Your task to perform on an android device: Open Reddit.com Image 0: 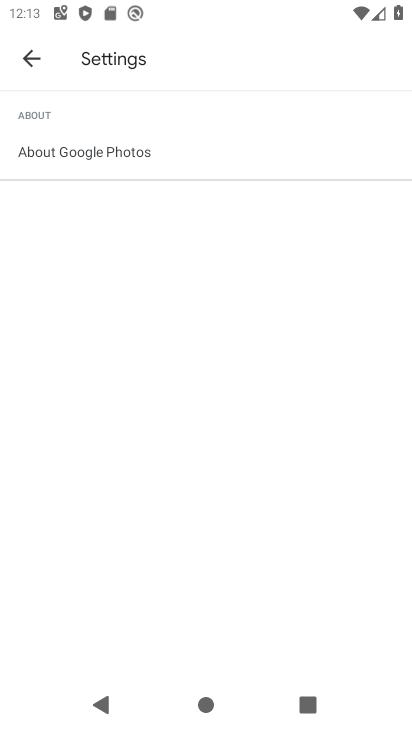
Step 0: click (26, 54)
Your task to perform on an android device: Open Reddit.com Image 1: 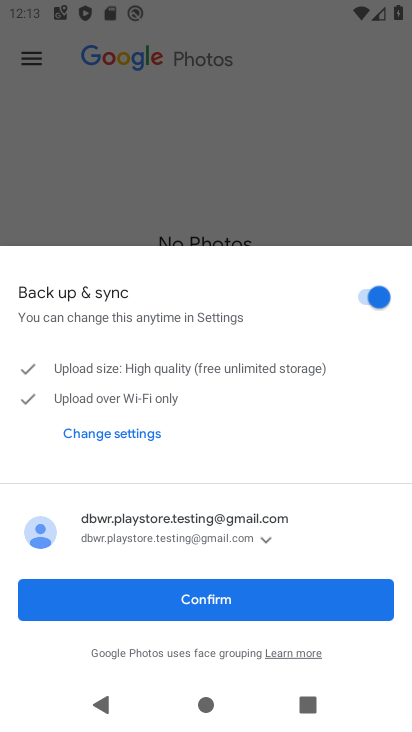
Step 1: click (231, 602)
Your task to perform on an android device: Open Reddit.com Image 2: 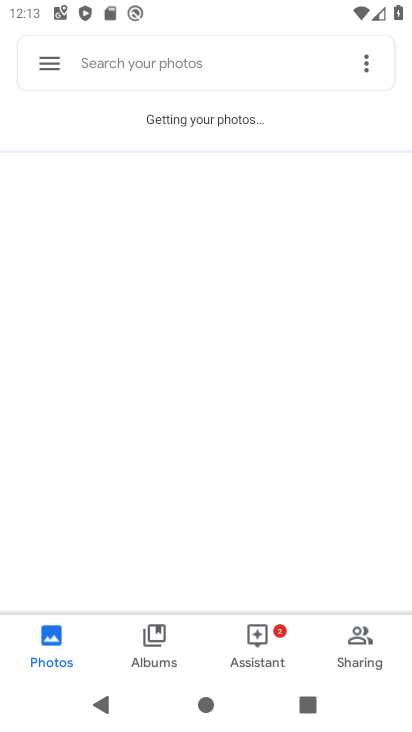
Step 2: press back button
Your task to perform on an android device: Open Reddit.com Image 3: 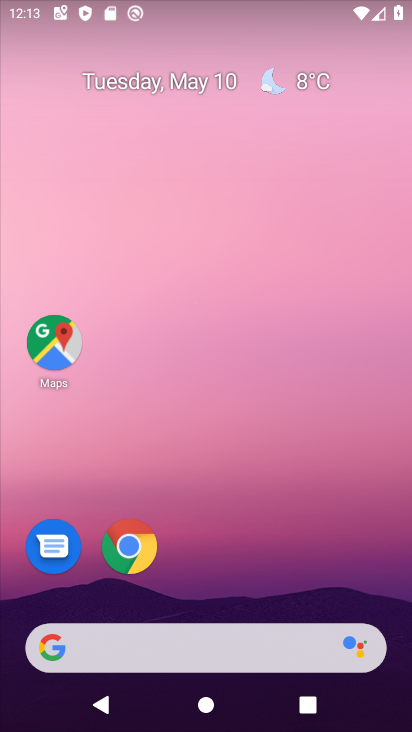
Step 3: drag from (268, 563) to (145, 153)
Your task to perform on an android device: Open Reddit.com Image 4: 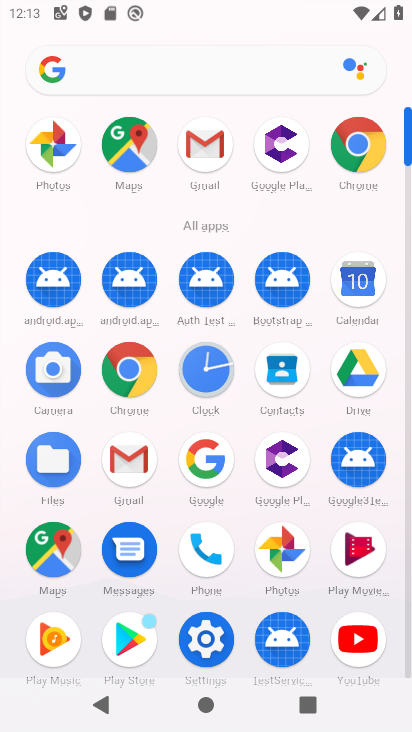
Step 4: click (137, 377)
Your task to perform on an android device: Open Reddit.com Image 5: 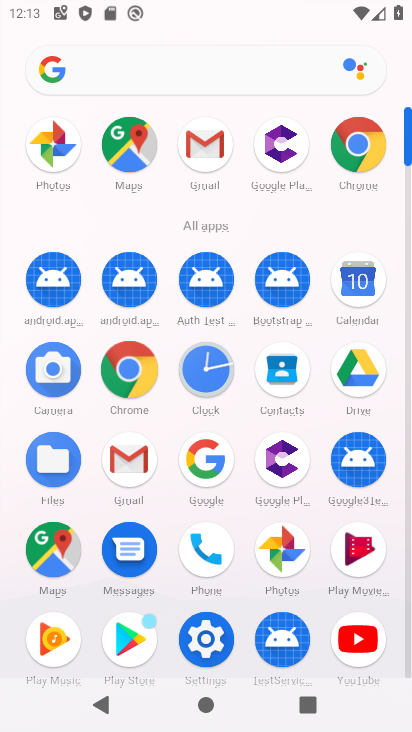
Step 5: click (137, 377)
Your task to perform on an android device: Open Reddit.com Image 6: 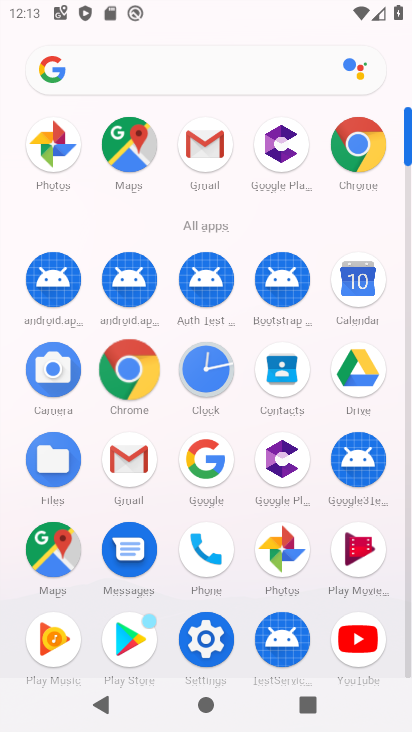
Step 6: click (137, 377)
Your task to perform on an android device: Open Reddit.com Image 7: 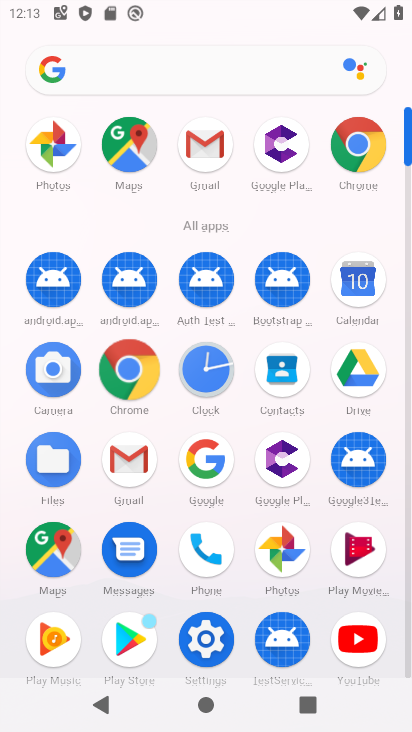
Step 7: click (137, 377)
Your task to perform on an android device: Open Reddit.com Image 8: 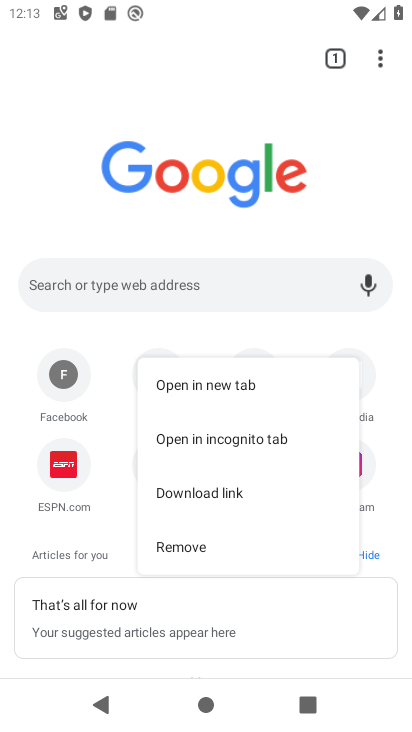
Step 8: click (77, 282)
Your task to perform on an android device: Open Reddit.com Image 9: 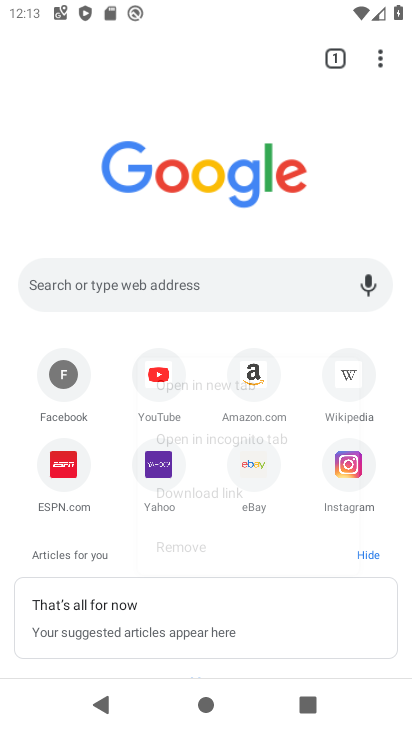
Step 9: click (77, 282)
Your task to perform on an android device: Open Reddit.com Image 10: 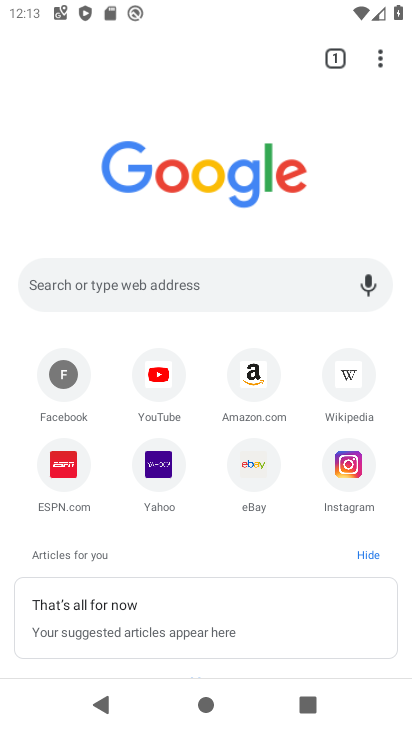
Step 10: click (77, 282)
Your task to perform on an android device: Open Reddit.com Image 11: 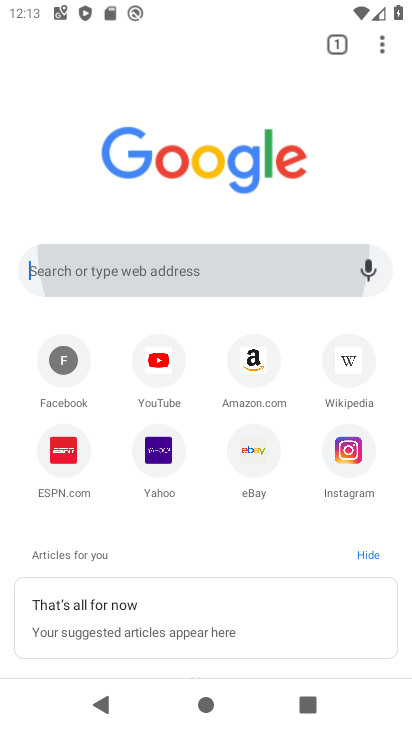
Step 11: click (77, 282)
Your task to perform on an android device: Open Reddit.com Image 12: 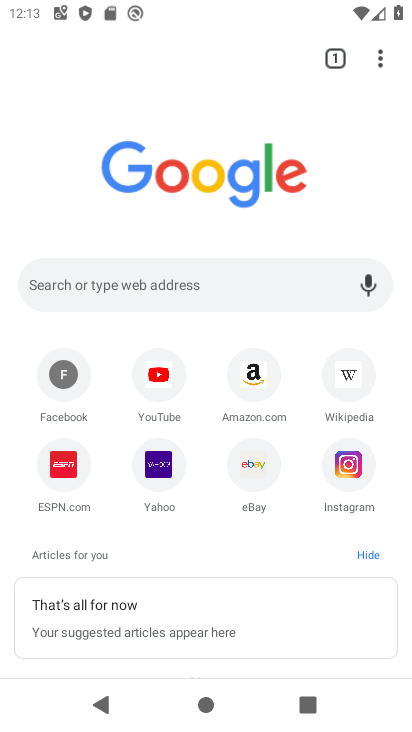
Step 12: click (64, 286)
Your task to perform on an android device: Open Reddit.com Image 13: 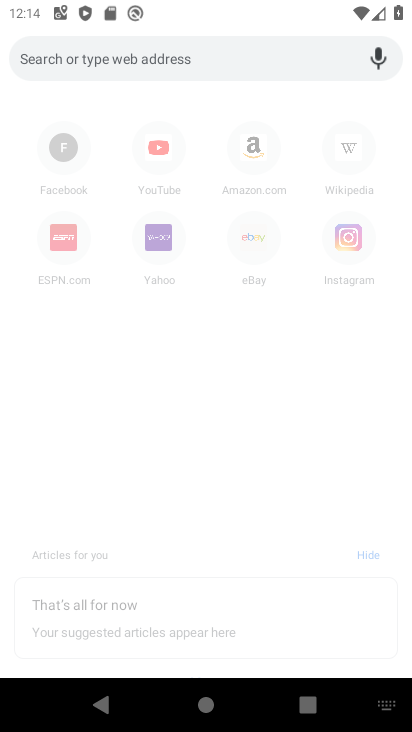
Step 13: type "reddit.com"
Your task to perform on an android device: Open Reddit.com Image 14: 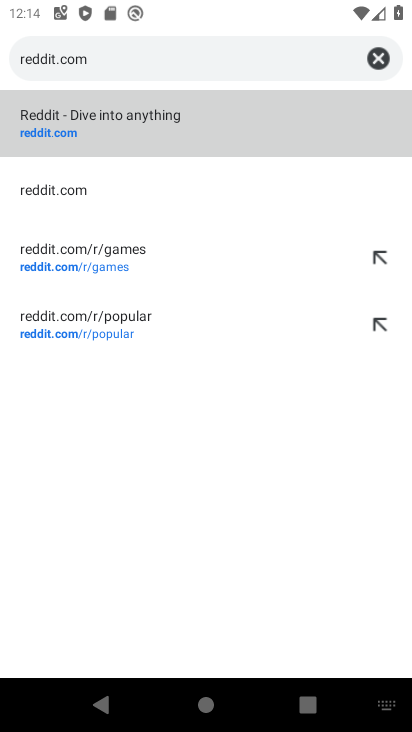
Step 14: click (49, 131)
Your task to perform on an android device: Open Reddit.com Image 15: 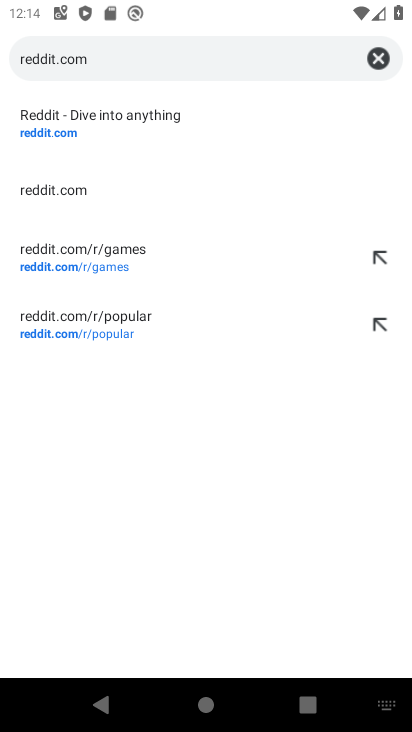
Step 15: click (52, 135)
Your task to perform on an android device: Open Reddit.com Image 16: 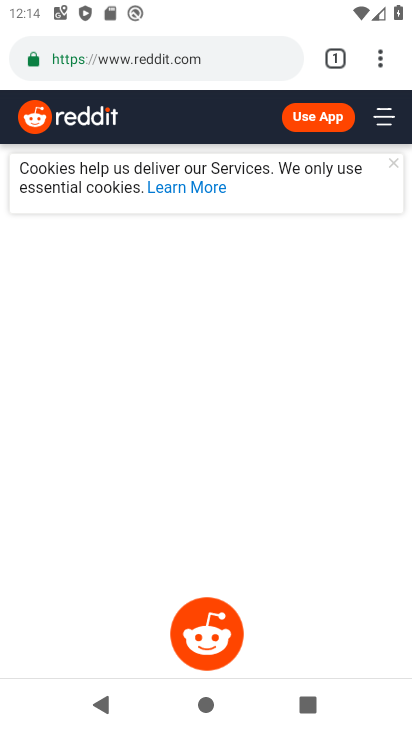
Step 16: task complete